Your task to perform on an android device: Search for sushi restaurants on Maps Image 0: 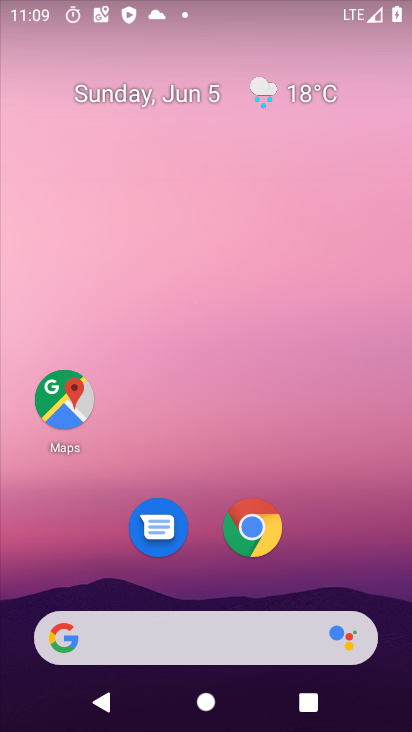
Step 0: click (68, 401)
Your task to perform on an android device: Search for sushi restaurants on Maps Image 1: 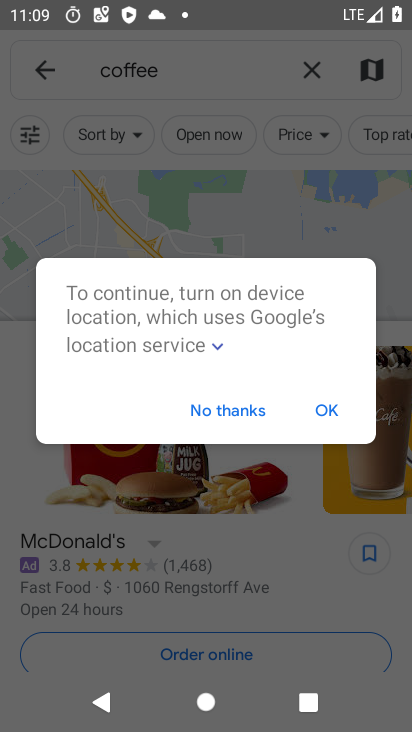
Step 1: click (325, 400)
Your task to perform on an android device: Search for sushi restaurants on Maps Image 2: 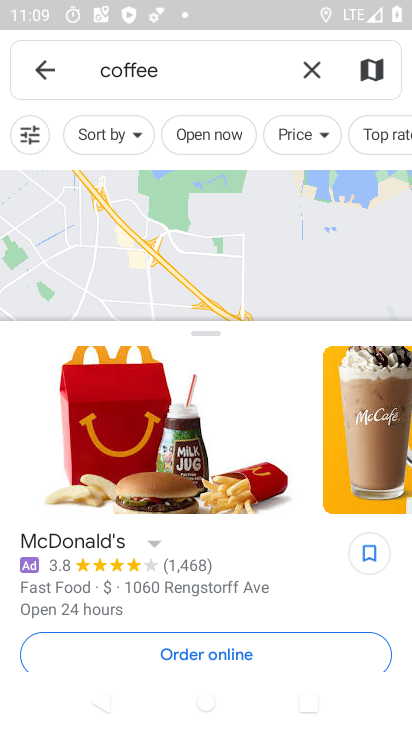
Step 2: click (310, 67)
Your task to perform on an android device: Search for sushi restaurants on Maps Image 3: 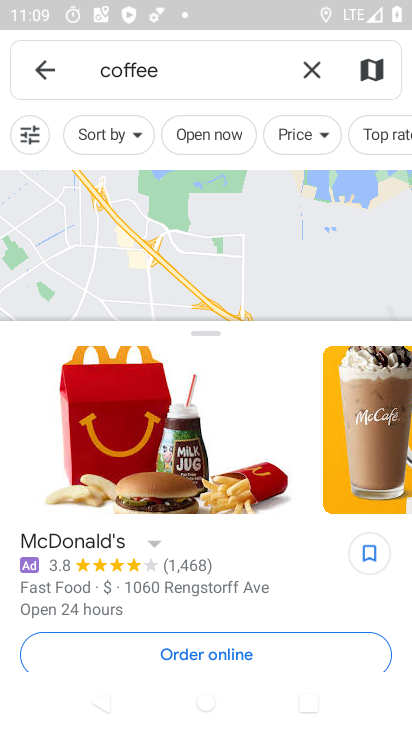
Step 3: click (217, 69)
Your task to perform on an android device: Search for sushi restaurants on Maps Image 4: 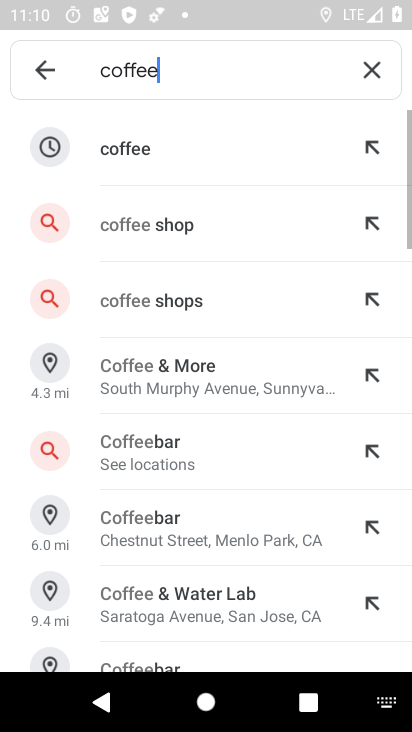
Step 4: click (376, 73)
Your task to perform on an android device: Search for sushi restaurants on Maps Image 5: 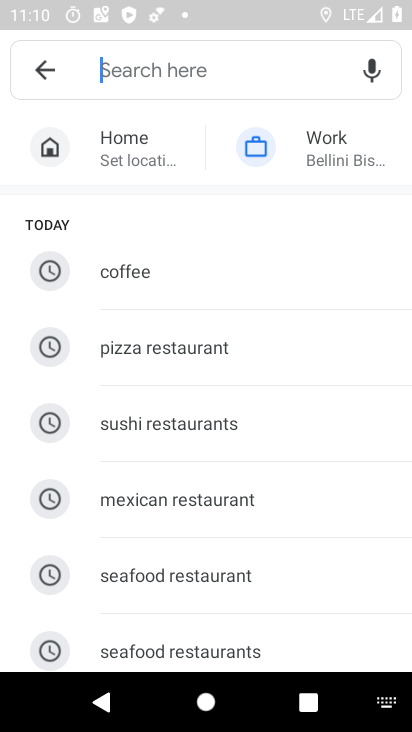
Step 5: click (231, 422)
Your task to perform on an android device: Search for sushi restaurants on Maps Image 6: 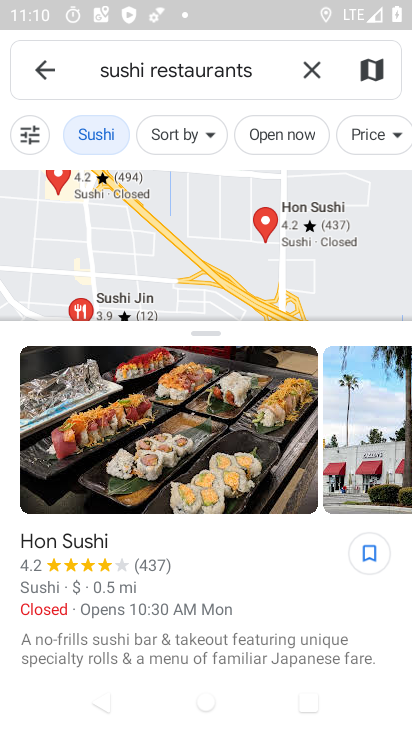
Step 6: task complete